Your task to perform on an android device: Open Maps and search for coffee Image 0: 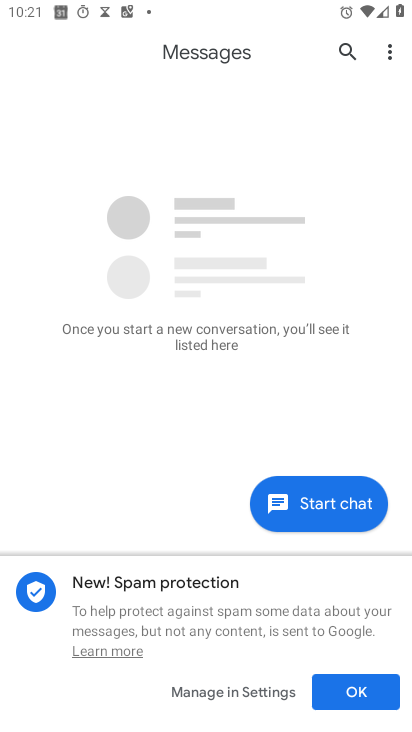
Step 0: press home button
Your task to perform on an android device: Open Maps and search for coffee Image 1: 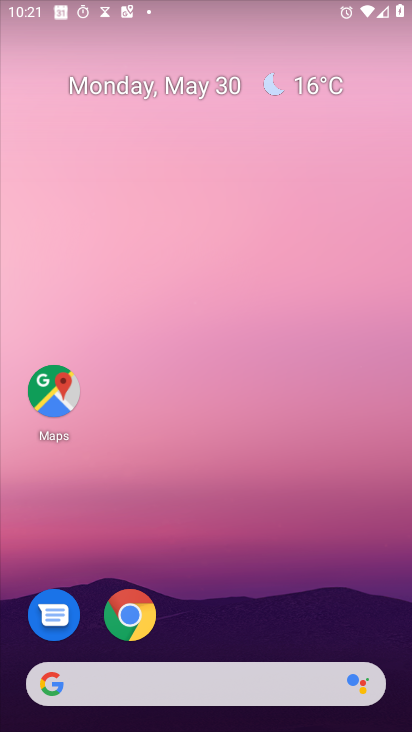
Step 1: drag from (343, 584) to (252, 31)
Your task to perform on an android device: Open Maps and search for coffee Image 2: 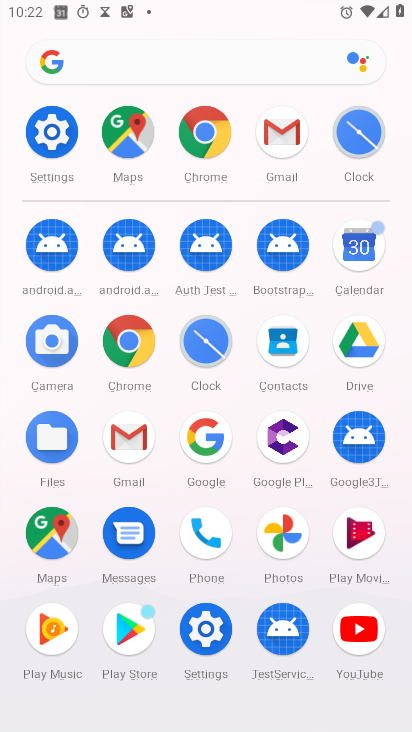
Step 2: click (128, 143)
Your task to perform on an android device: Open Maps and search for coffee Image 3: 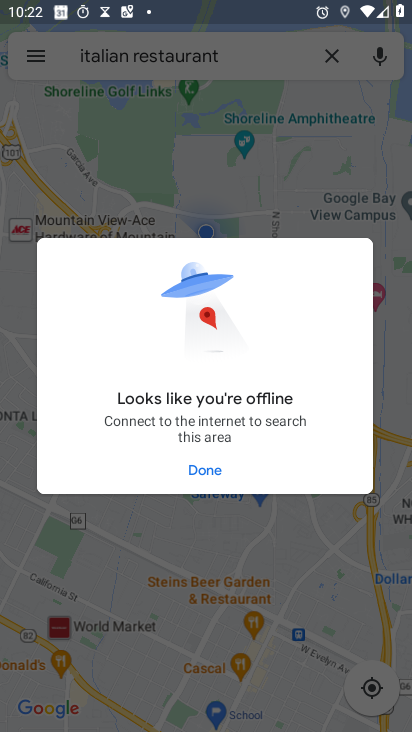
Step 3: click (323, 55)
Your task to perform on an android device: Open Maps and search for coffee Image 4: 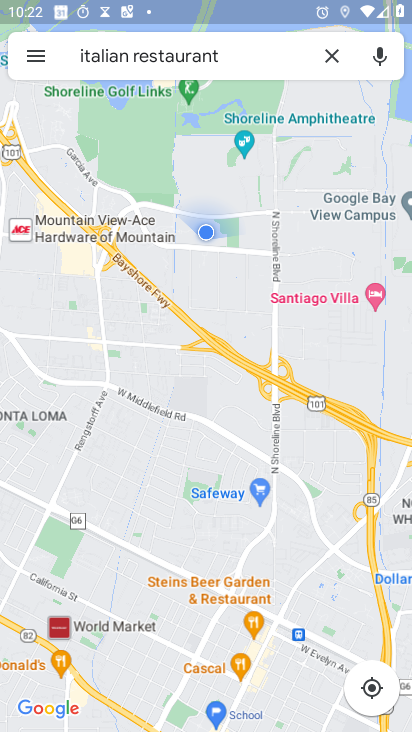
Step 4: click (332, 60)
Your task to perform on an android device: Open Maps and search for coffee Image 5: 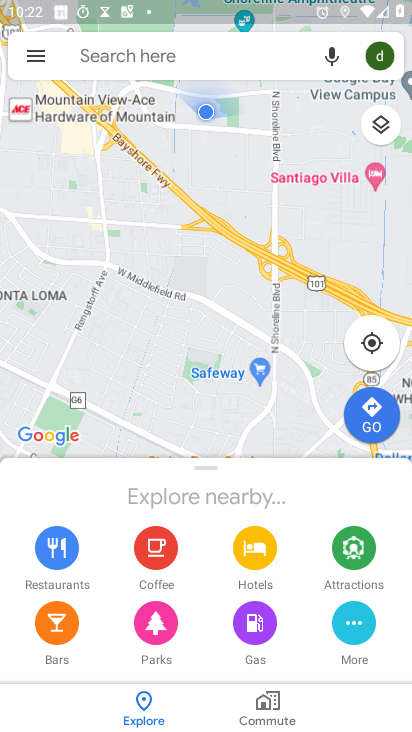
Step 5: click (229, 61)
Your task to perform on an android device: Open Maps and search for coffee Image 6: 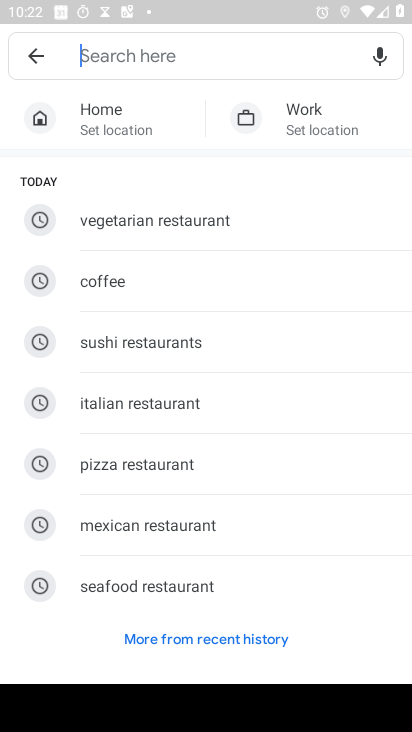
Step 6: click (112, 290)
Your task to perform on an android device: Open Maps and search for coffee Image 7: 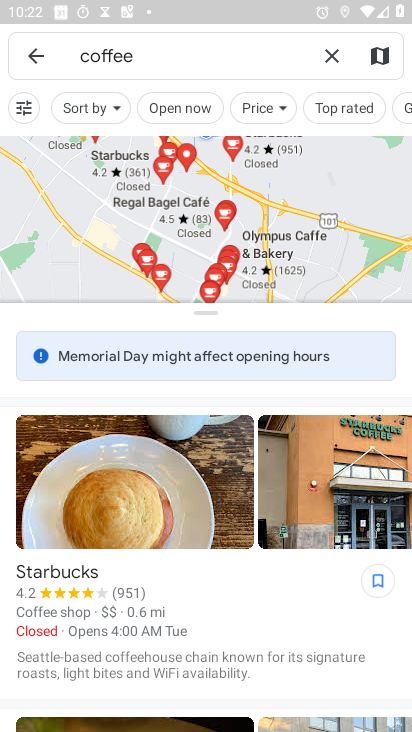
Step 7: task complete